Your task to perform on an android device: toggle airplane mode Image 0: 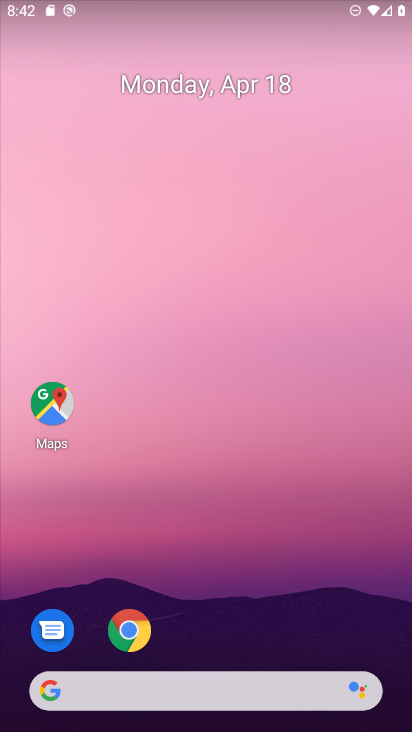
Step 0: drag from (204, 647) to (269, 323)
Your task to perform on an android device: toggle airplane mode Image 1: 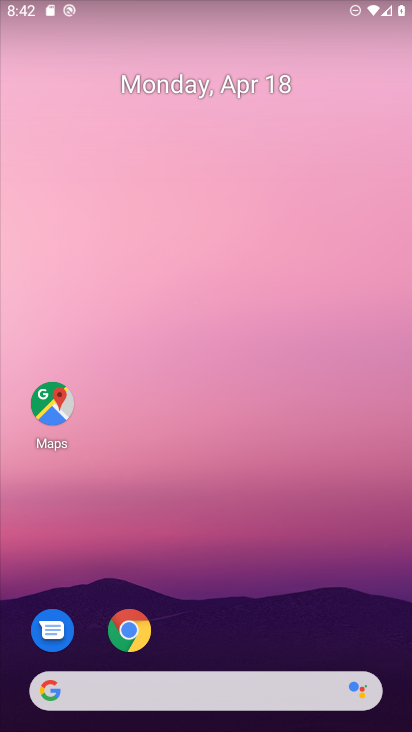
Step 1: drag from (211, 667) to (379, 168)
Your task to perform on an android device: toggle airplane mode Image 2: 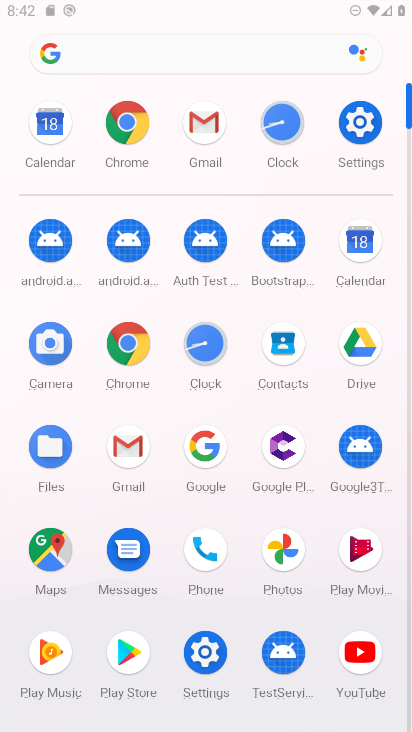
Step 2: click (369, 167)
Your task to perform on an android device: toggle airplane mode Image 3: 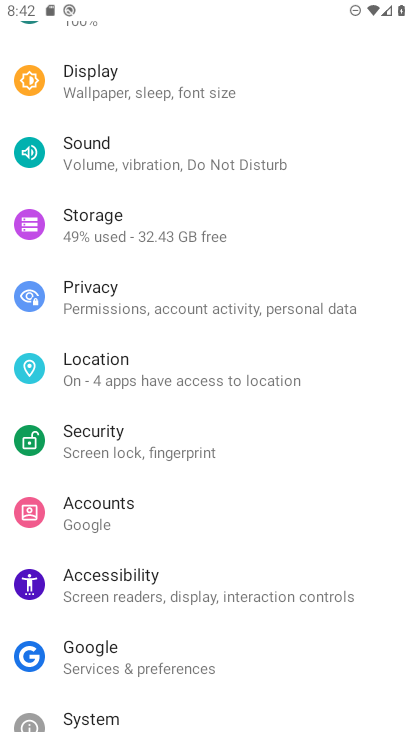
Step 3: drag from (134, 149) to (160, 292)
Your task to perform on an android device: toggle airplane mode Image 4: 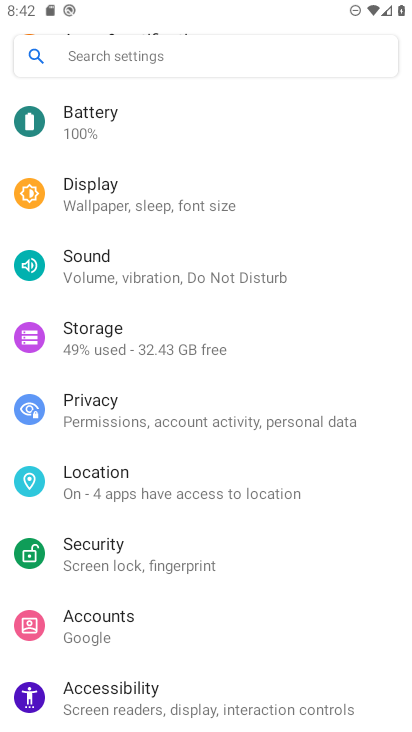
Step 4: drag from (164, 208) to (171, 346)
Your task to perform on an android device: toggle airplane mode Image 5: 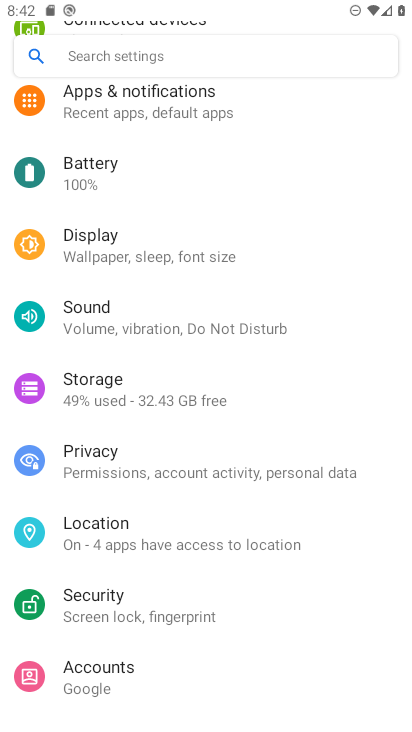
Step 5: drag from (193, 147) to (173, 614)
Your task to perform on an android device: toggle airplane mode Image 6: 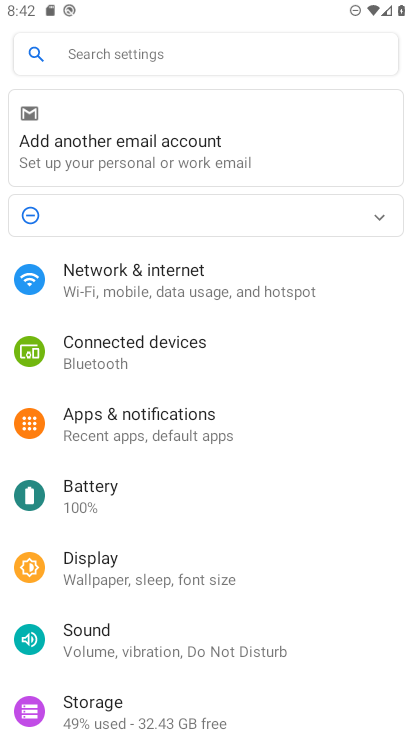
Step 6: click (142, 280)
Your task to perform on an android device: toggle airplane mode Image 7: 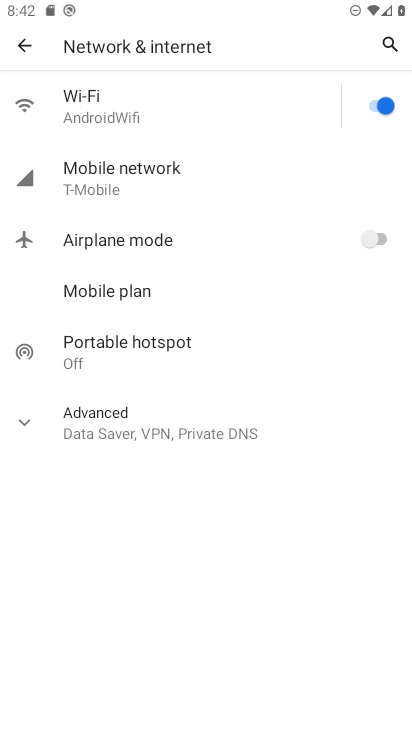
Step 7: click (357, 229)
Your task to perform on an android device: toggle airplane mode Image 8: 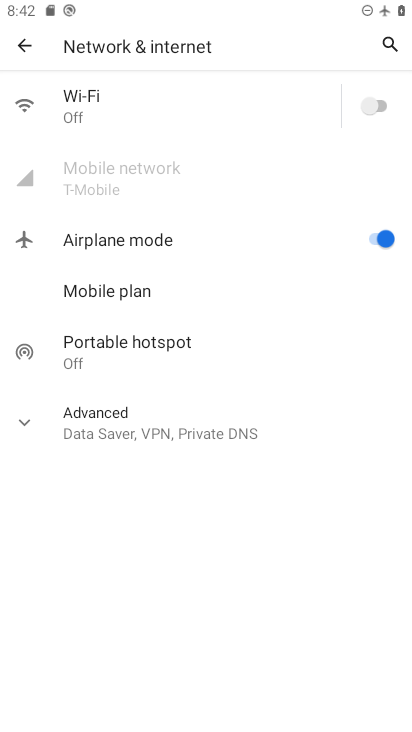
Step 8: task complete